Your task to perform on an android device: Go to wifi settings Image 0: 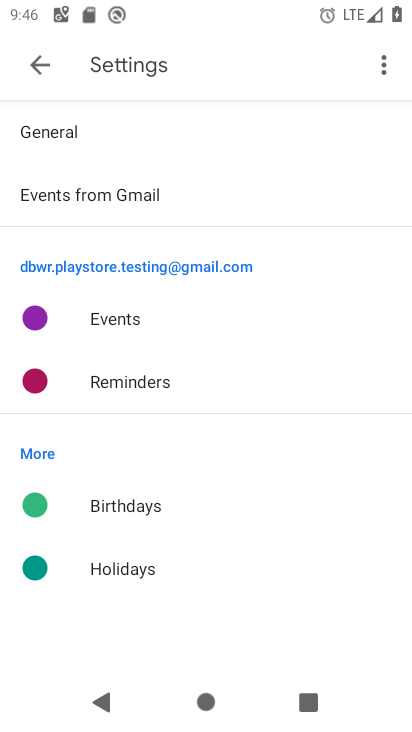
Step 0: press home button
Your task to perform on an android device: Go to wifi settings Image 1: 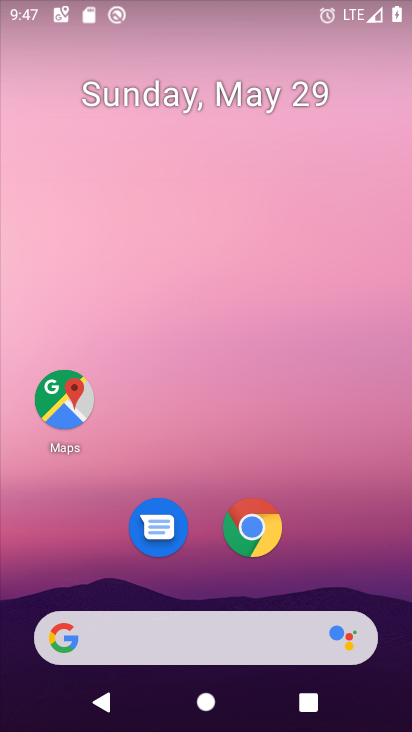
Step 1: drag from (197, 589) to (192, 90)
Your task to perform on an android device: Go to wifi settings Image 2: 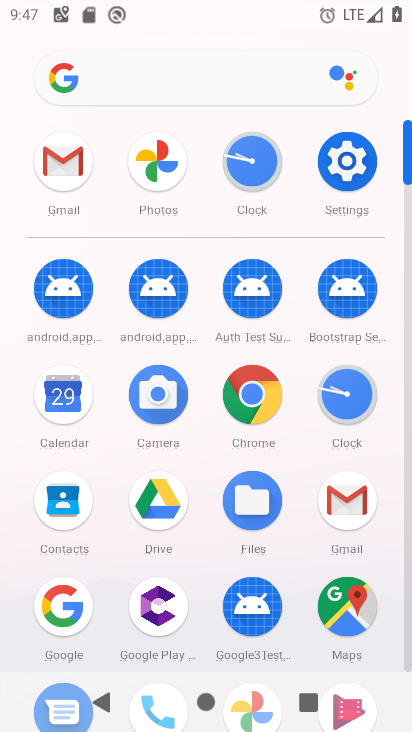
Step 2: click (345, 153)
Your task to perform on an android device: Go to wifi settings Image 3: 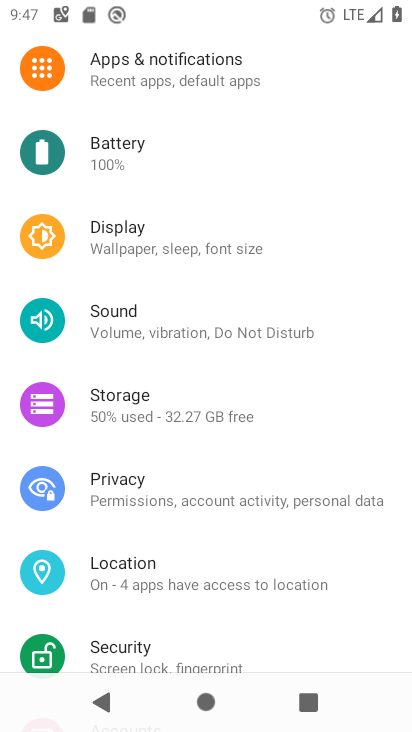
Step 3: drag from (208, 110) to (241, 725)
Your task to perform on an android device: Go to wifi settings Image 4: 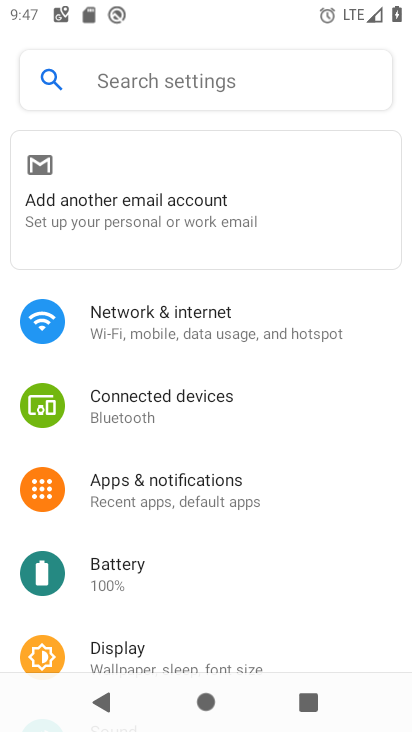
Step 4: click (234, 317)
Your task to perform on an android device: Go to wifi settings Image 5: 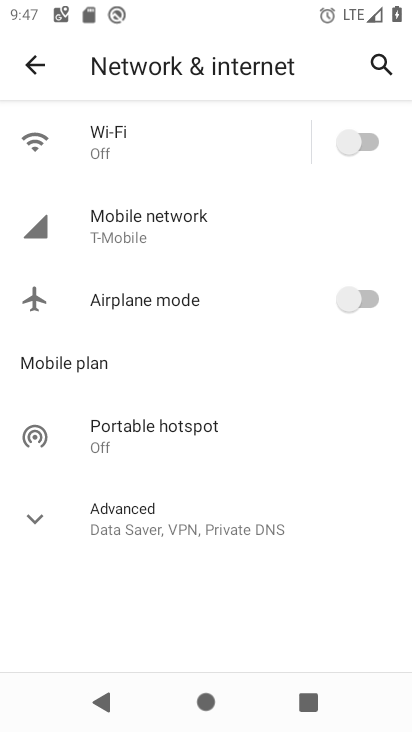
Step 5: click (160, 130)
Your task to perform on an android device: Go to wifi settings Image 6: 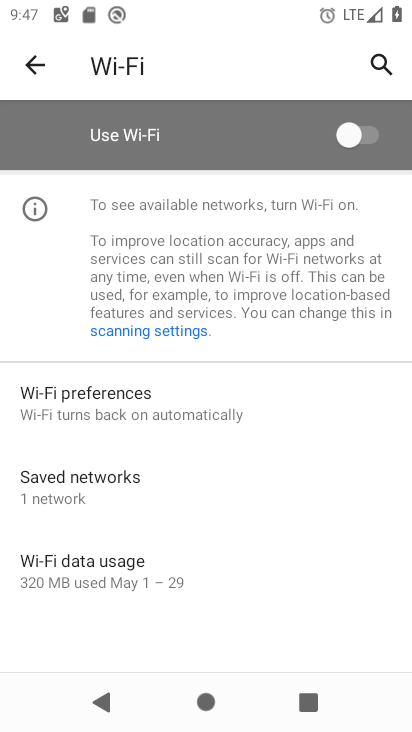
Step 6: click (358, 136)
Your task to perform on an android device: Go to wifi settings Image 7: 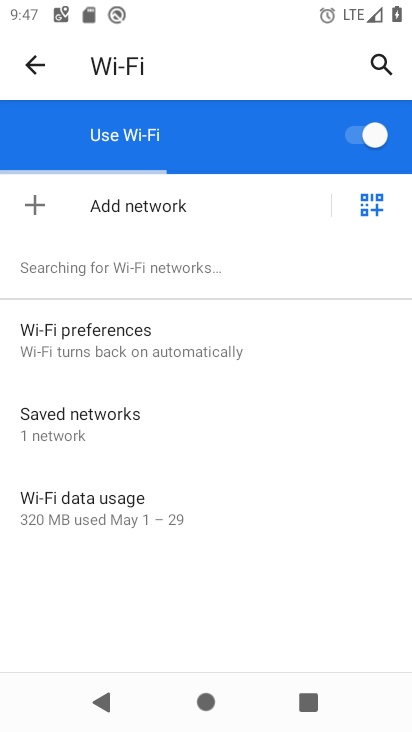
Step 7: task complete